Your task to perform on an android device: change text size in settings app Image 0: 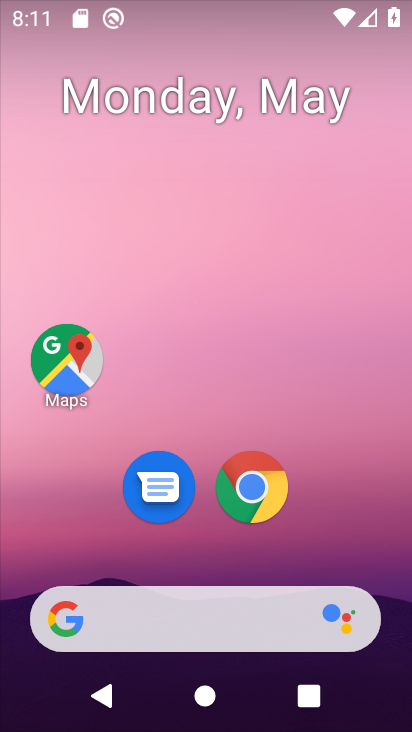
Step 0: drag from (219, 524) to (159, 15)
Your task to perform on an android device: change text size in settings app Image 1: 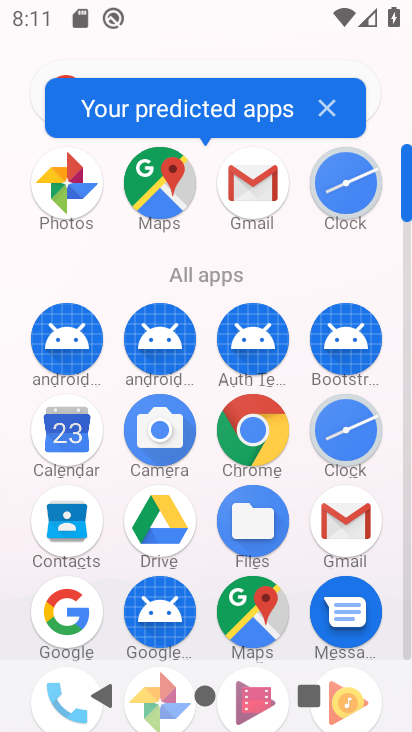
Step 1: drag from (209, 484) to (199, 182)
Your task to perform on an android device: change text size in settings app Image 2: 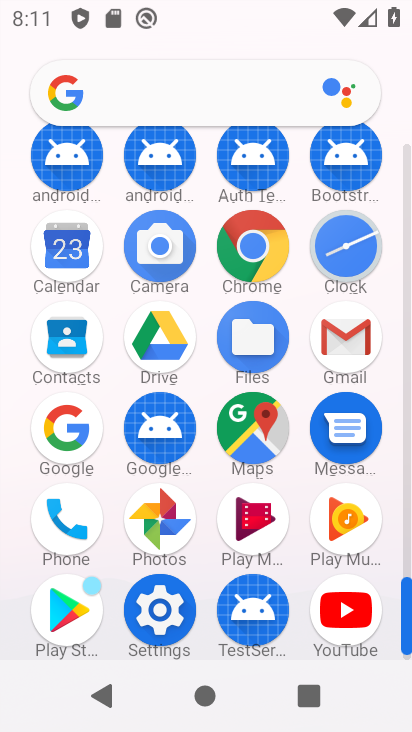
Step 2: click (149, 594)
Your task to perform on an android device: change text size in settings app Image 3: 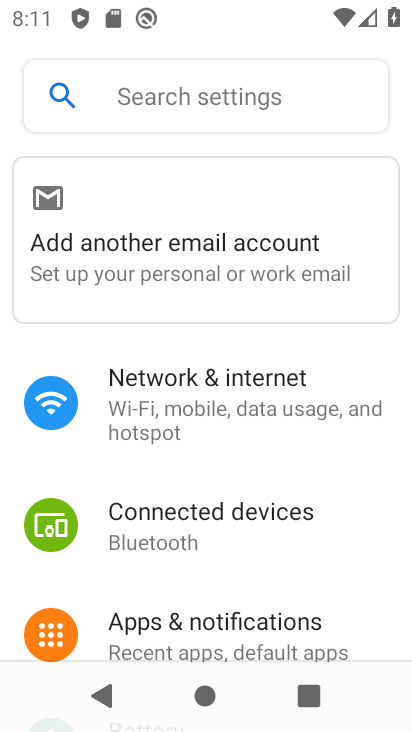
Step 3: drag from (231, 566) to (219, 204)
Your task to perform on an android device: change text size in settings app Image 4: 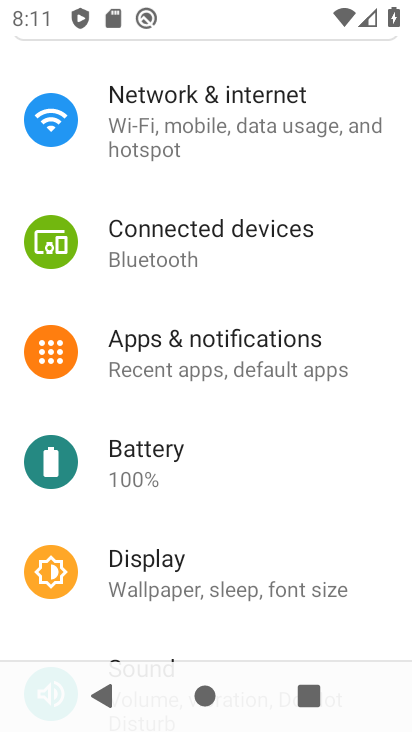
Step 4: drag from (200, 573) to (200, 270)
Your task to perform on an android device: change text size in settings app Image 5: 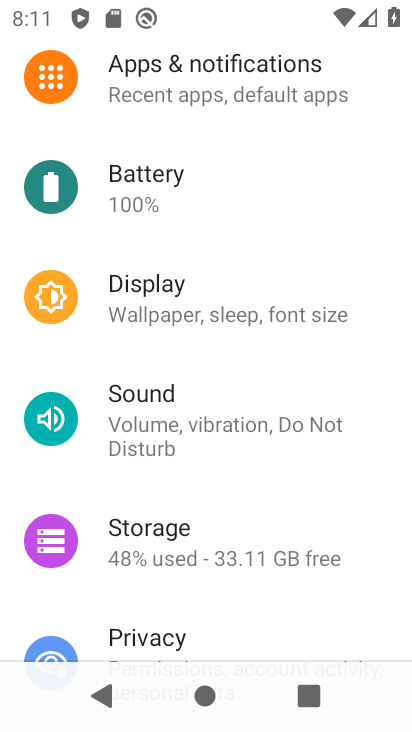
Step 5: click (265, 314)
Your task to perform on an android device: change text size in settings app Image 6: 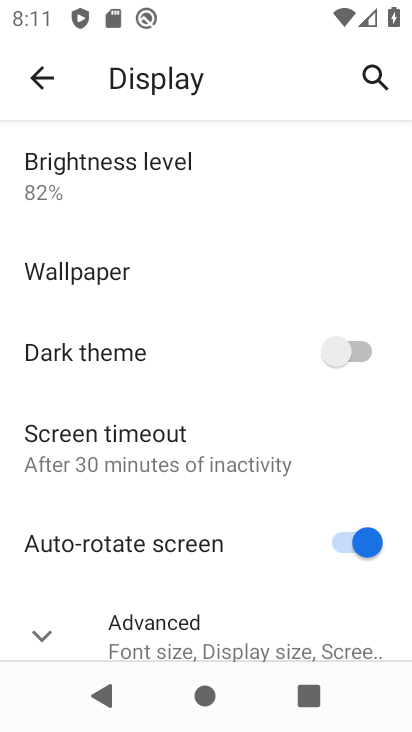
Step 6: drag from (184, 569) to (176, 106)
Your task to perform on an android device: change text size in settings app Image 7: 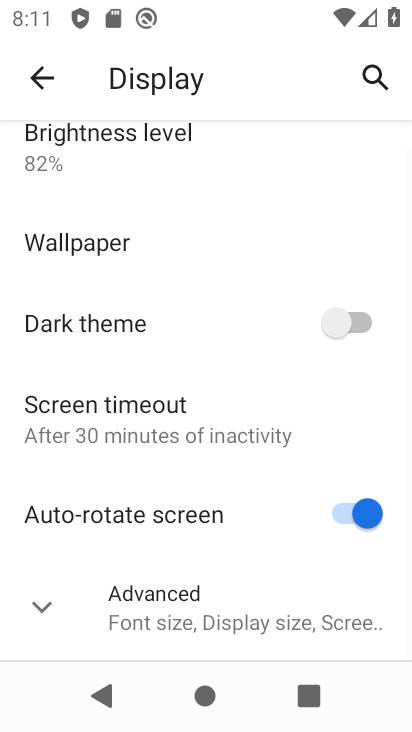
Step 7: click (204, 617)
Your task to perform on an android device: change text size in settings app Image 8: 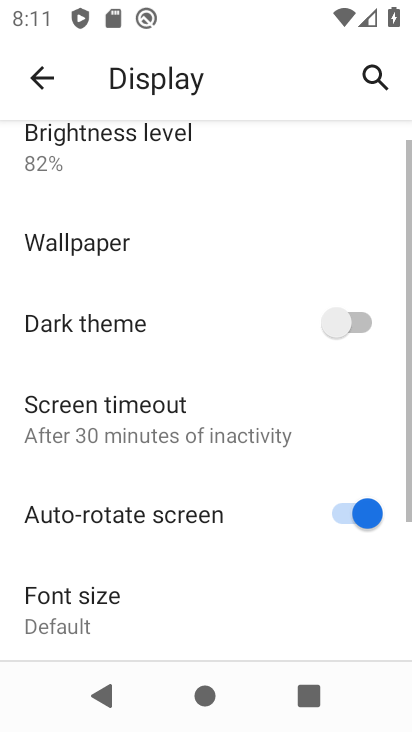
Step 8: drag from (193, 538) to (192, 299)
Your task to perform on an android device: change text size in settings app Image 9: 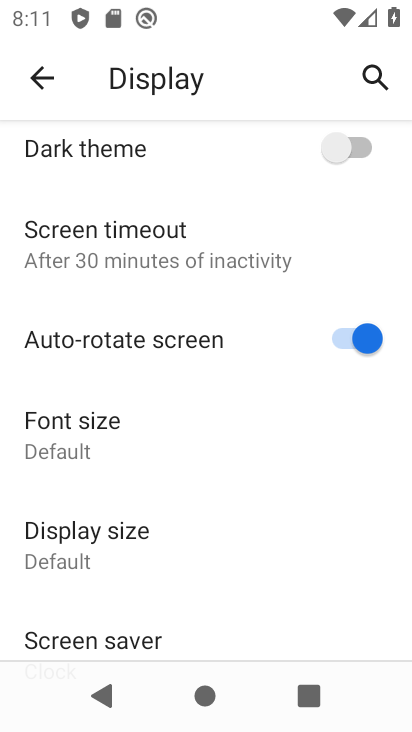
Step 9: click (119, 438)
Your task to perform on an android device: change text size in settings app Image 10: 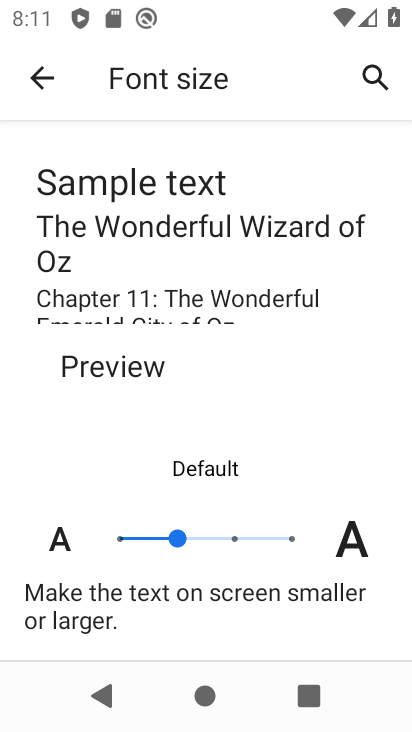
Step 10: click (225, 538)
Your task to perform on an android device: change text size in settings app Image 11: 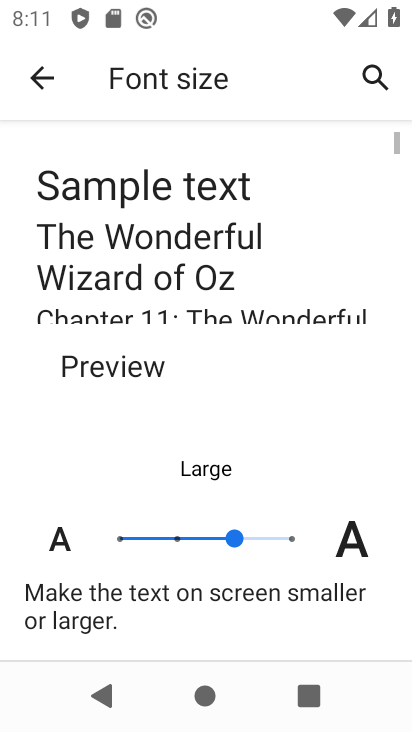
Step 11: task complete